Your task to perform on an android device: turn off smart reply in the gmail app Image 0: 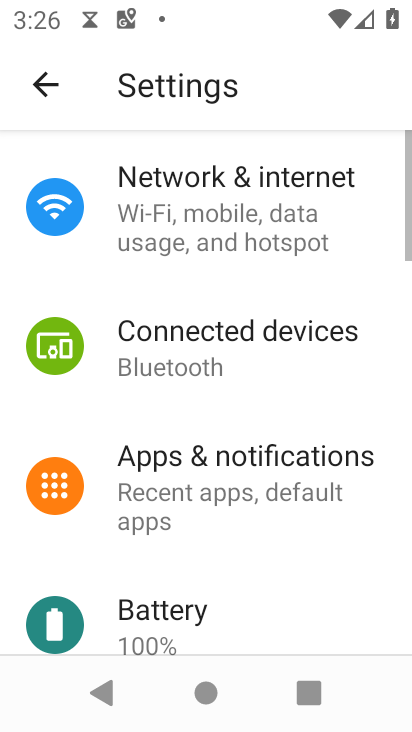
Step 0: press home button
Your task to perform on an android device: turn off smart reply in the gmail app Image 1: 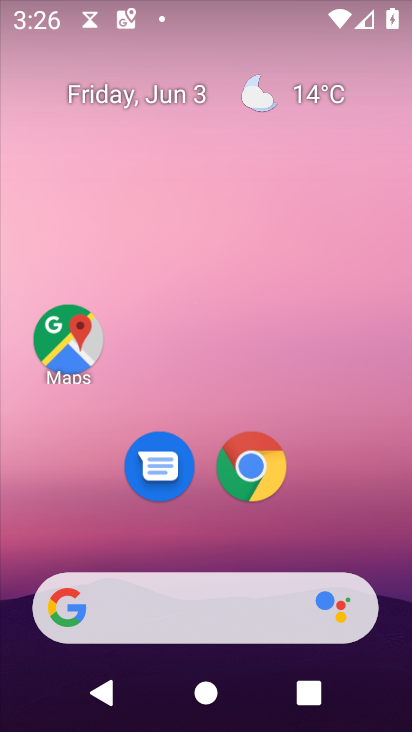
Step 1: drag from (358, 463) to (346, 116)
Your task to perform on an android device: turn off smart reply in the gmail app Image 2: 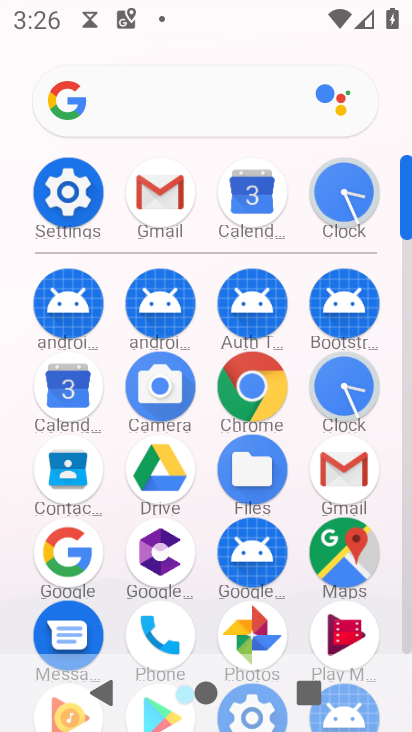
Step 2: click (149, 196)
Your task to perform on an android device: turn off smart reply in the gmail app Image 3: 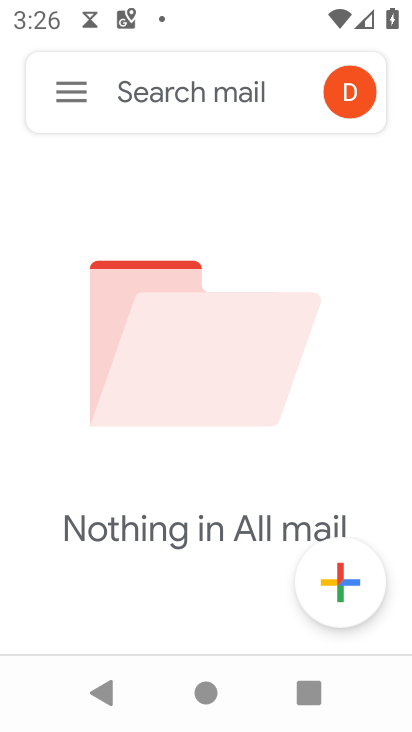
Step 3: click (92, 87)
Your task to perform on an android device: turn off smart reply in the gmail app Image 4: 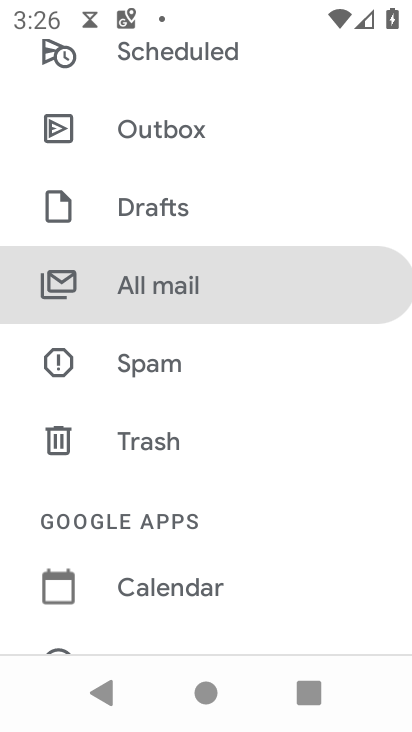
Step 4: drag from (169, 484) to (160, 129)
Your task to perform on an android device: turn off smart reply in the gmail app Image 5: 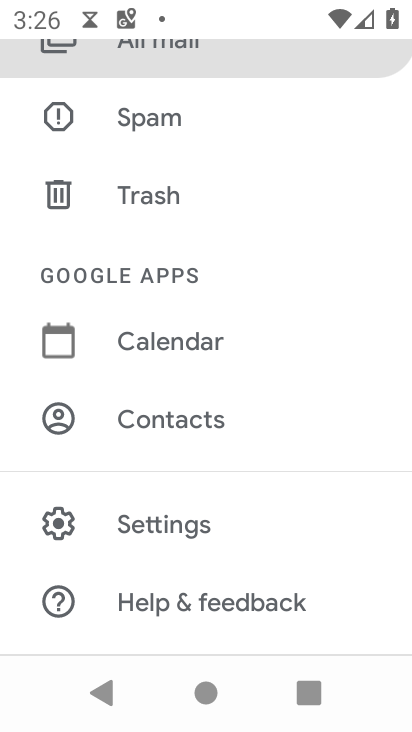
Step 5: click (137, 496)
Your task to perform on an android device: turn off smart reply in the gmail app Image 6: 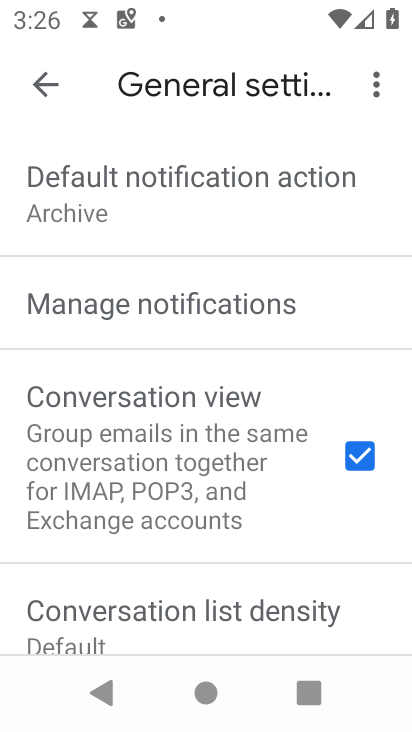
Step 6: drag from (206, 464) to (186, 44)
Your task to perform on an android device: turn off smart reply in the gmail app Image 7: 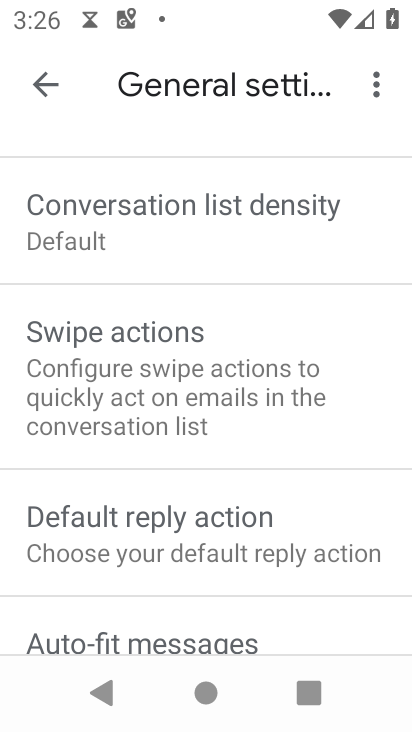
Step 7: drag from (173, 536) to (165, 180)
Your task to perform on an android device: turn off smart reply in the gmail app Image 8: 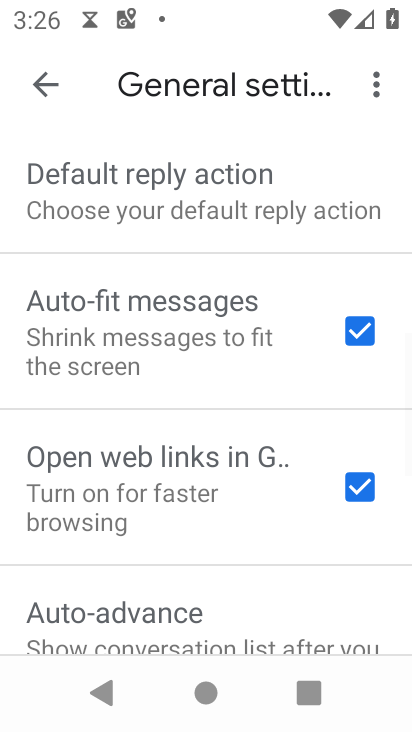
Step 8: drag from (202, 587) to (184, 222)
Your task to perform on an android device: turn off smart reply in the gmail app Image 9: 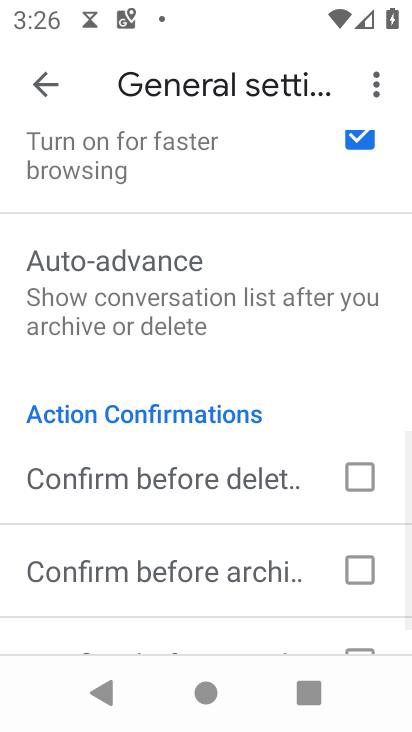
Step 9: drag from (195, 603) to (184, 250)
Your task to perform on an android device: turn off smart reply in the gmail app Image 10: 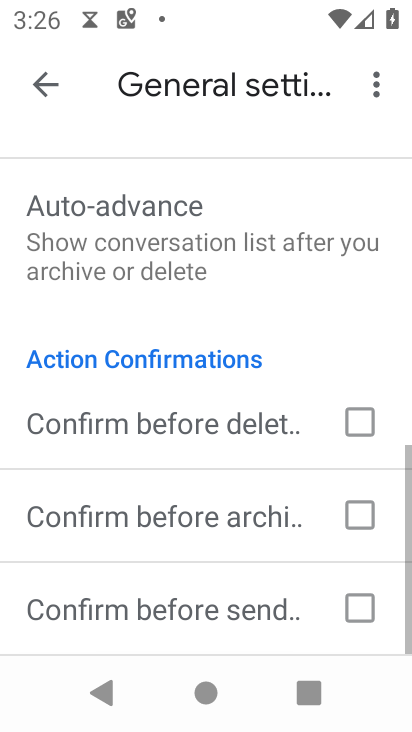
Step 10: drag from (189, 198) to (255, 588)
Your task to perform on an android device: turn off smart reply in the gmail app Image 11: 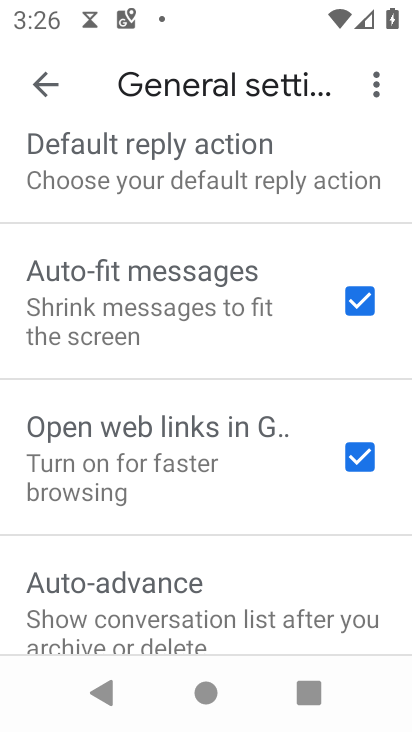
Step 11: drag from (236, 216) to (298, 597)
Your task to perform on an android device: turn off smart reply in the gmail app Image 12: 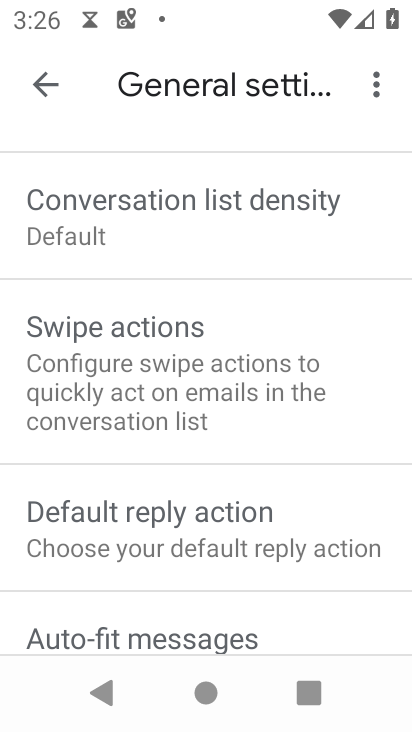
Step 12: click (240, 521)
Your task to perform on an android device: turn off smart reply in the gmail app Image 13: 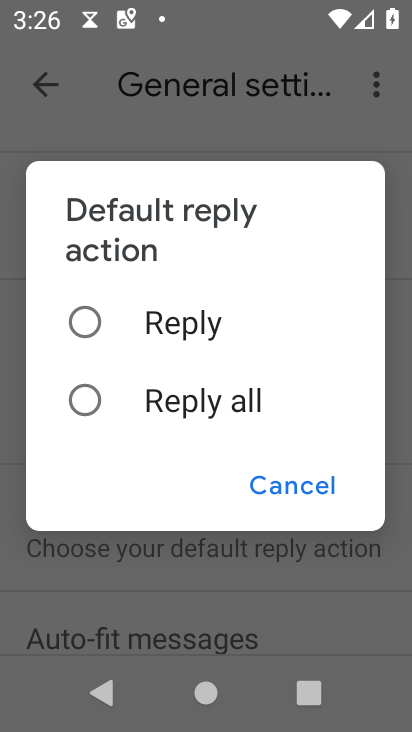
Step 13: click (271, 484)
Your task to perform on an android device: turn off smart reply in the gmail app Image 14: 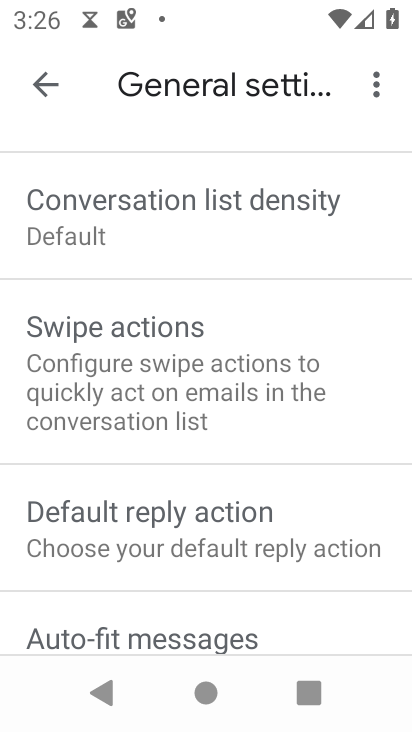
Step 14: drag from (188, 225) to (231, 596)
Your task to perform on an android device: turn off smart reply in the gmail app Image 15: 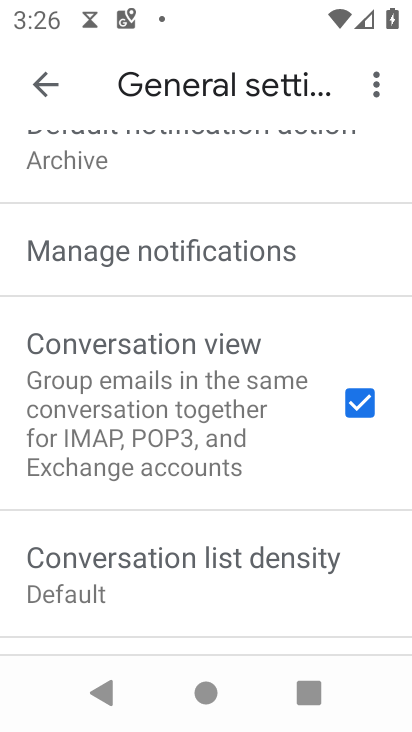
Step 15: drag from (201, 215) to (228, 532)
Your task to perform on an android device: turn off smart reply in the gmail app Image 16: 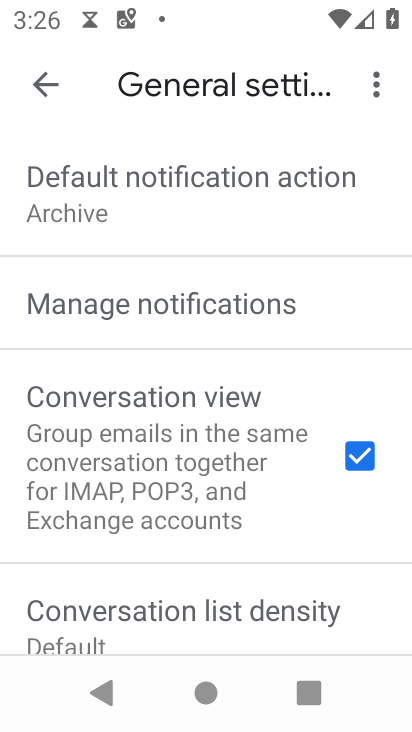
Step 16: drag from (181, 487) to (177, 156)
Your task to perform on an android device: turn off smart reply in the gmail app Image 17: 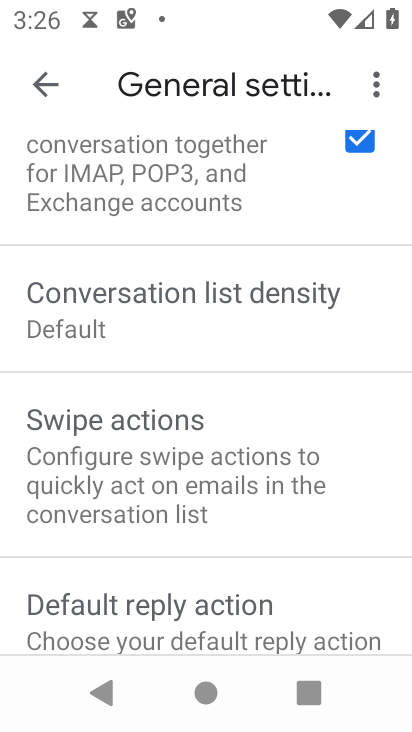
Step 17: drag from (180, 479) to (181, 175)
Your task to perform on an android device: turn off smart reply in the gmail app Image 18: 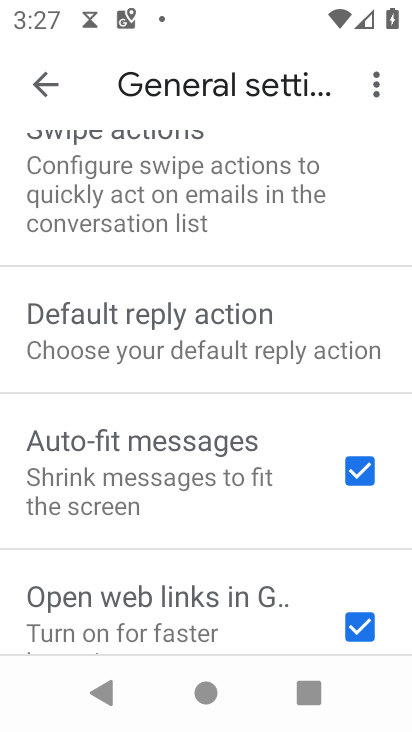
Step 18: drag from (220, 567) to (215, 216)
Your task to perform on an android device: turn off smart reply in the gmail app Image 19: 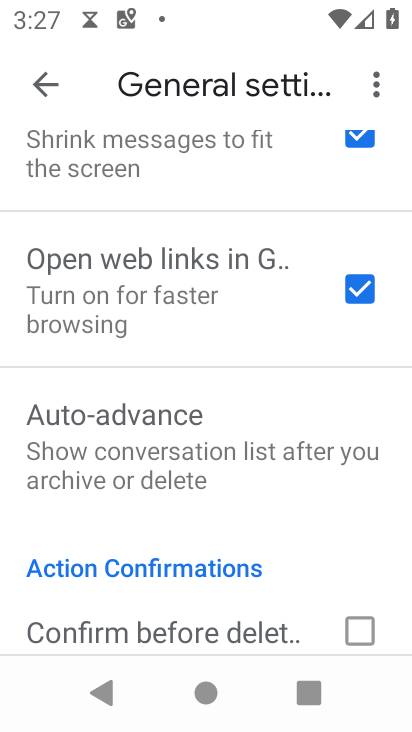
Step 19: drag from (207, 193) to (280, 587)
Your task to perform on an android device: turn off smart reply in the gmail app Image 20: 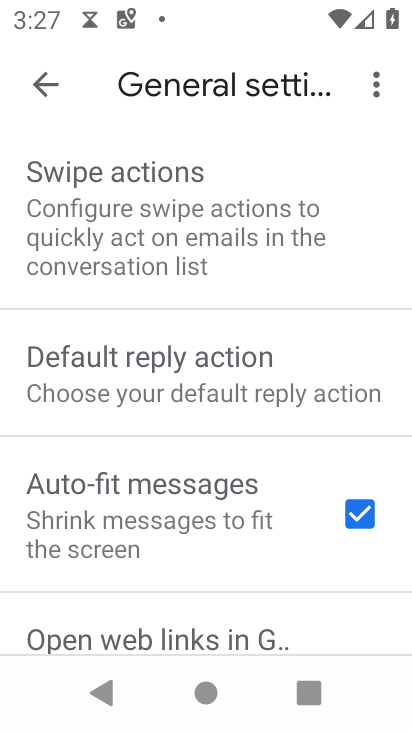
Step 20: click (238, 391)
Your task to perform on an android device: turn off smart reply in the gmail app Image 21: 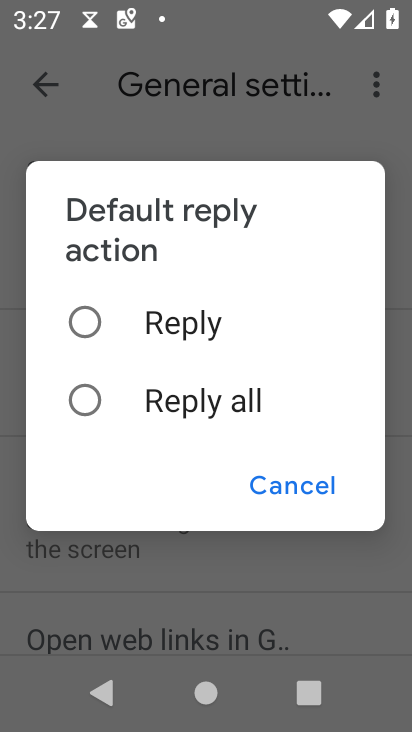
Step 21: click (264, 480)
Your task to perform on an android device: turn off smart reply in the gmail app Image 22: 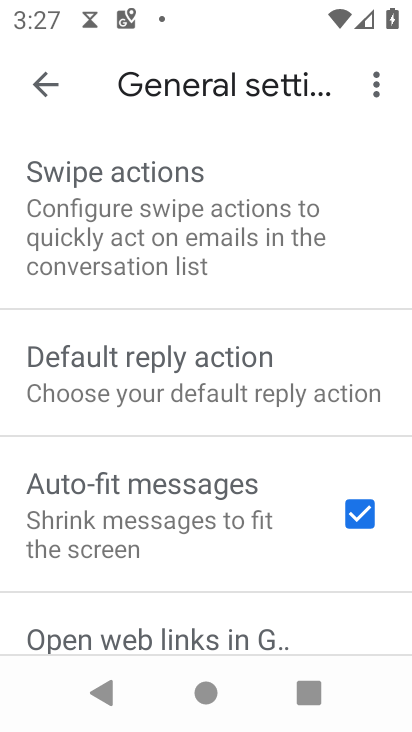
Step 22: drag from (149, 179) to (173, 633)
Your task to perform on an android device: turn off smart reply in the gmail app Image 23: 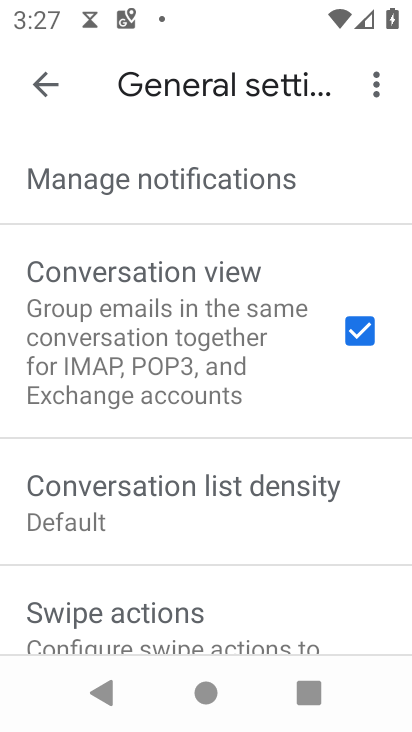
Step 23: drag from (124, 216) to (174, 602)
Your task to perform on an android device: turn off smart reply in the gmail app Image 24: 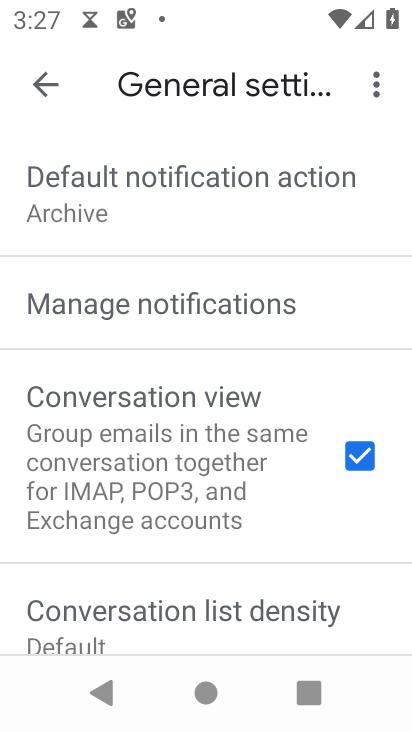
Step 24: click (385, 65)
Your task to perform on an android device: turn off smart reply in the gmail app Image 25: 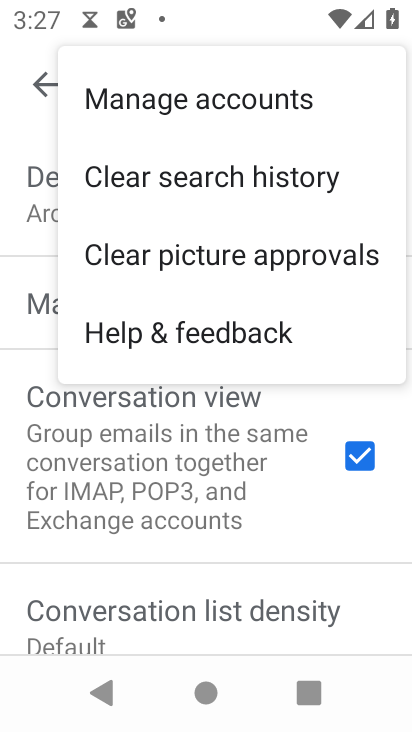
Step 25: click (194, 515)
Your task to perform on an android device: turn off smart reply in the gmail app Image 26: 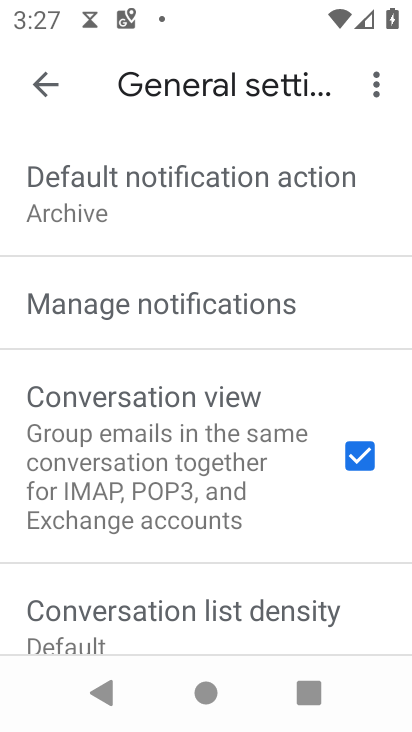
Step 26: drag from (193, 505) to (157, 52)
Your task to perform on an android device: turn off smart reply in the gmail app Image 27: 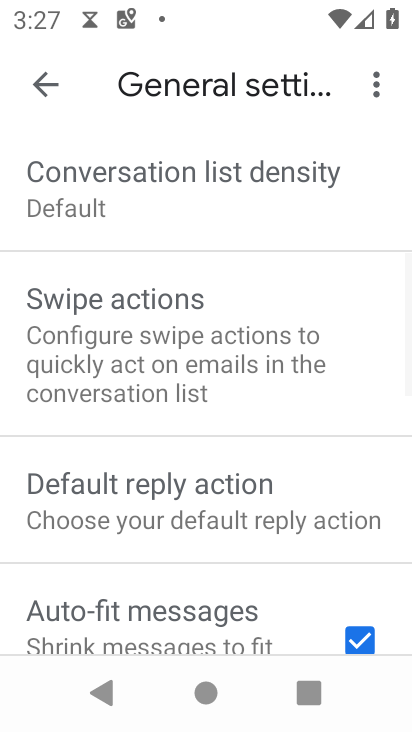
Step 27: drag from (152, 592) to (150, 307)
Your task to perform on an android device: turn off smart reply in the gmail app Image 28: 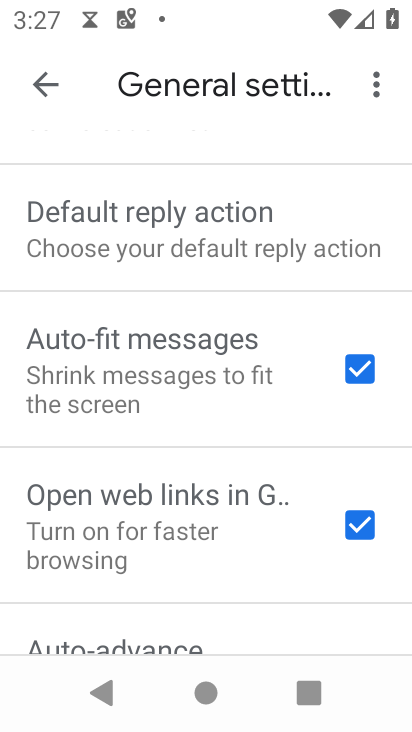
Step 28: drag from (170, 187) to (219, 502)
Your task to perform on an android device: turn off smart reply in the gmail app Image 29: 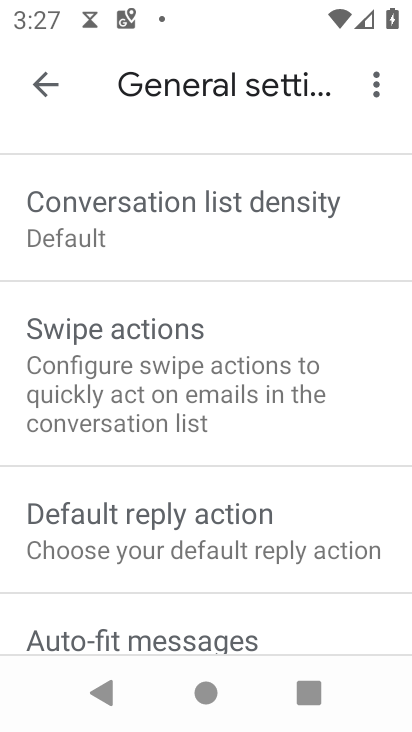
Step 29: click (194, 428)
Your task to perform on an android device: turn off smart reply in the gmail app Image 30: 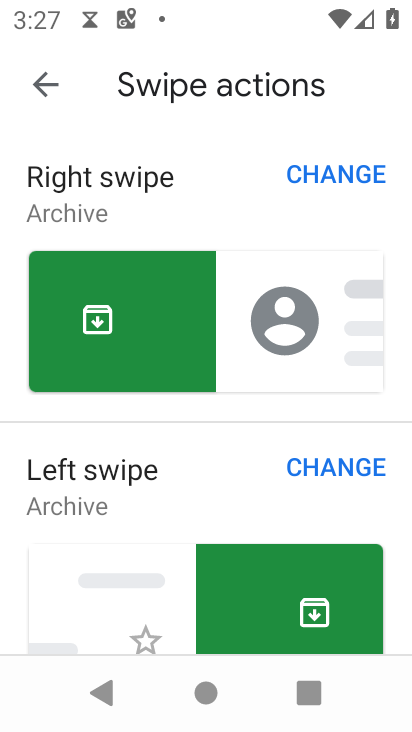
Step 30: task complete